Your task to perform on an android device: move a message to another label in the gmail app Image 0: 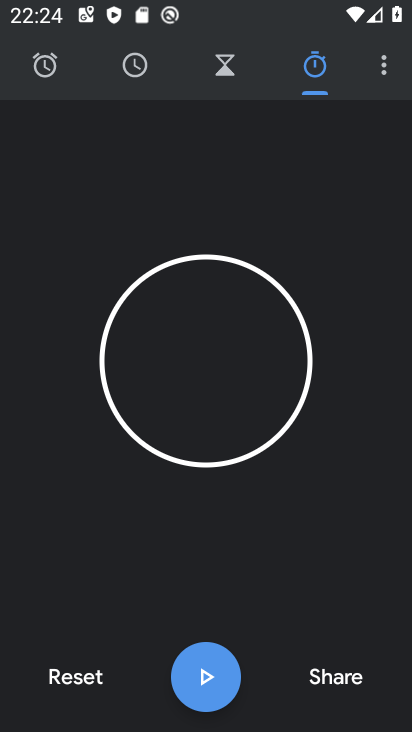
Step 0: press home button
Your task to perform on an android device: move a message to another label in the gmail app Image 1: 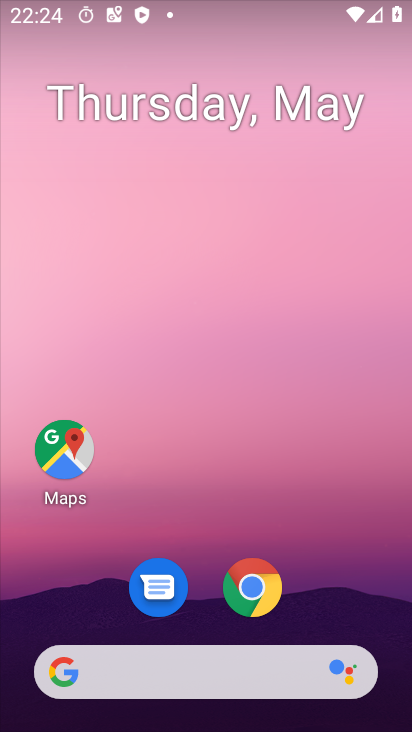
Step 1: drag from (323, 644) to (330, 1)
Your task to perform on an android device: move a message to another label in the gmail app Image 2: 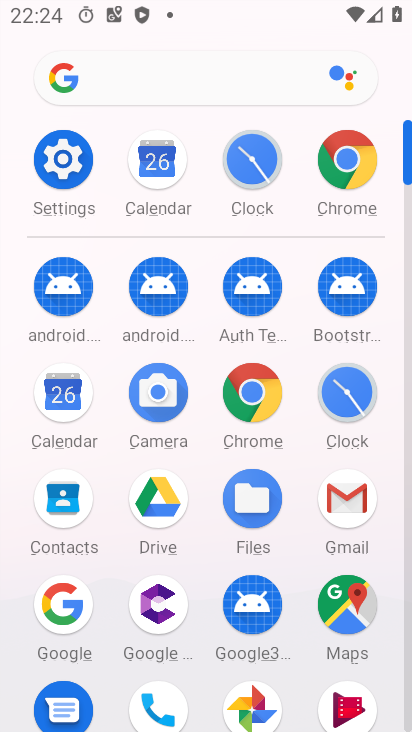
Step 2: click (347, 506)
Your task to perform on an android device: move a message to another label in the gmail app Image 3: 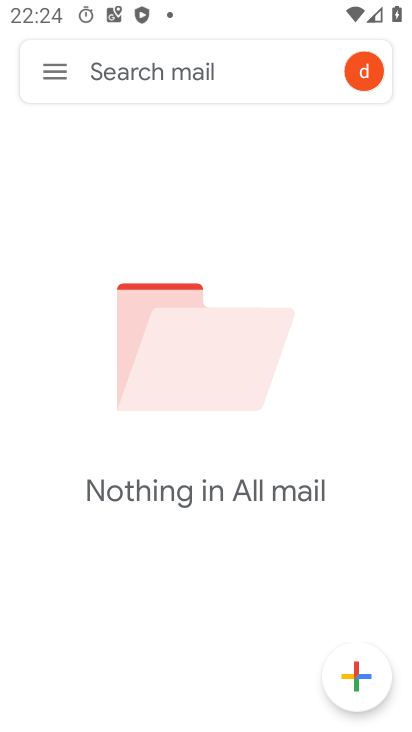
Step 3: task complete